Your task to perform on an android device: Open privacy settings Image 0: 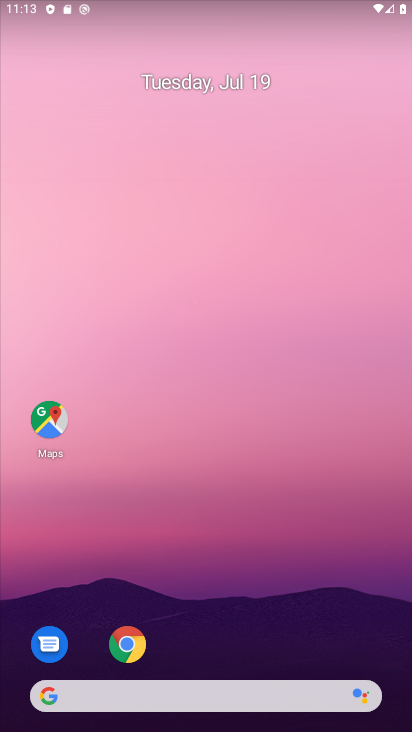
Step 0: drag from (190, 668) to (44, 19)
Your task to perform on an android device: Open privacy settings Image 1: 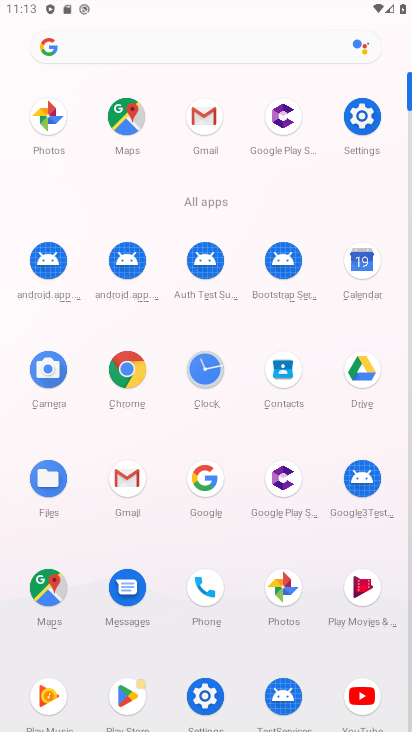
Step 1: click (374, 117)
Your task to perform on an android device: Open privacy settings Image 2: 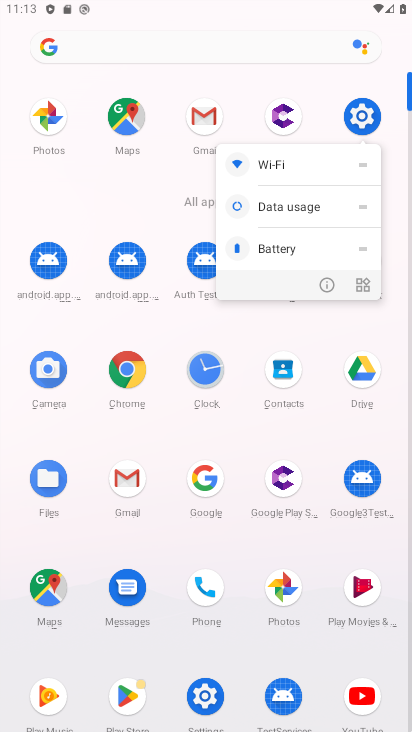
Step 2: click (325, 277)
Your task to perform on an android device: Open privacy settings Image 3: 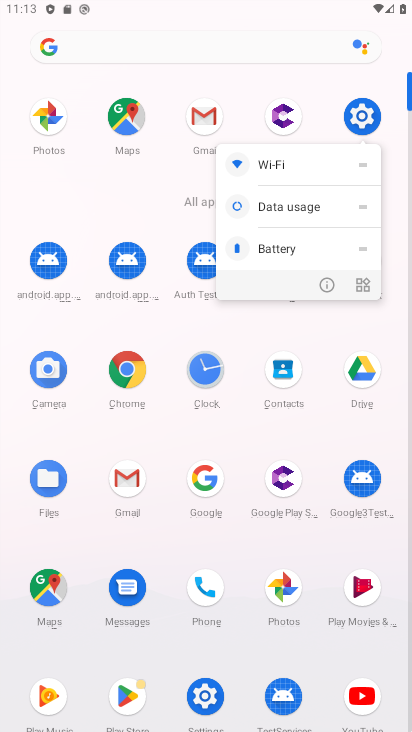
Step 3: click (325, 277)
Your task to perform on an android device: Open privacy settings Image 4: 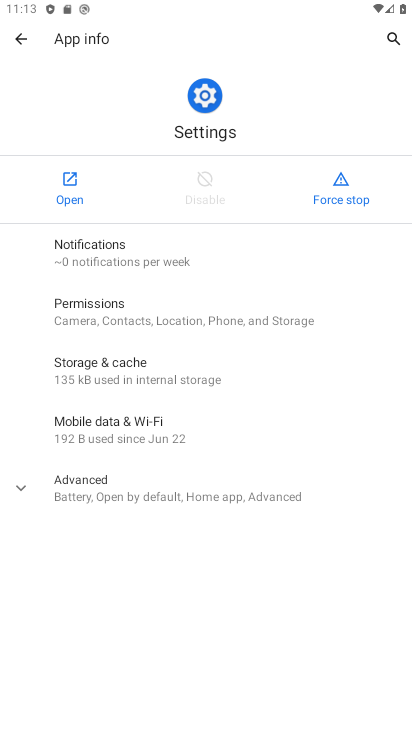
Step 4: click (69, 187)
Your task to perform on an android device: Open privacy settings Image 5: 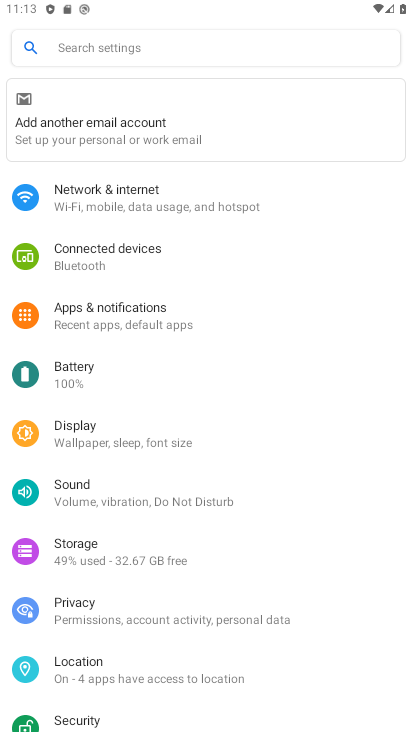
Step 5: click (97, 623)
Your task to perform on an android device: Open privacy settings Image 6: 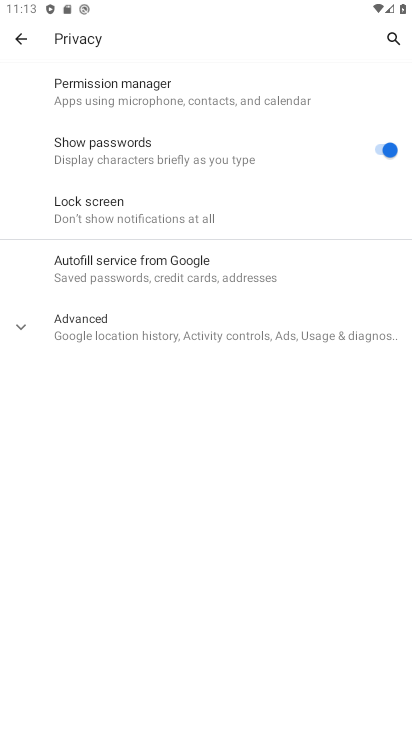
Step 6: click (181, 329)
Your task to perform on an android device: Open privacy settings Image 7: 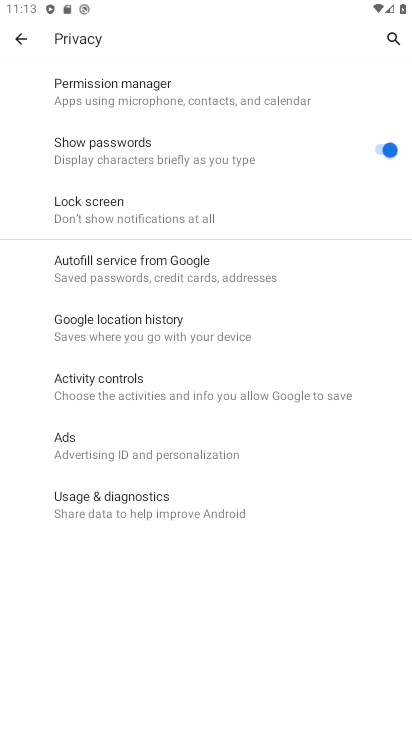
Step 7: task complete